Your task to perform on an android device: Search for Mexican restaurants on Maps Image 0: 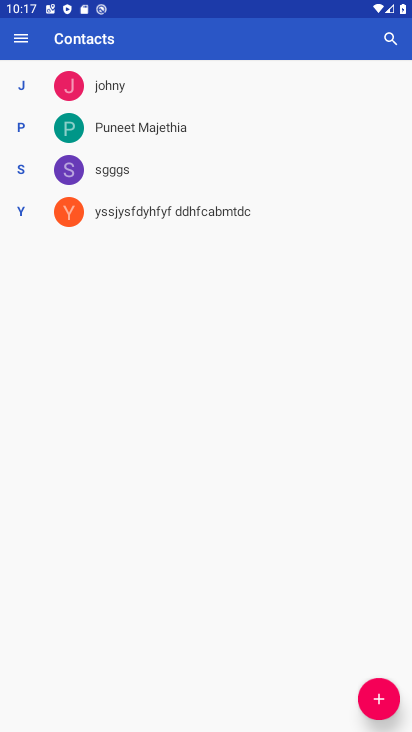
Step 0: press home button
Your task to perform on an android device: Search for Mexican restaurants on Maps Image 1: 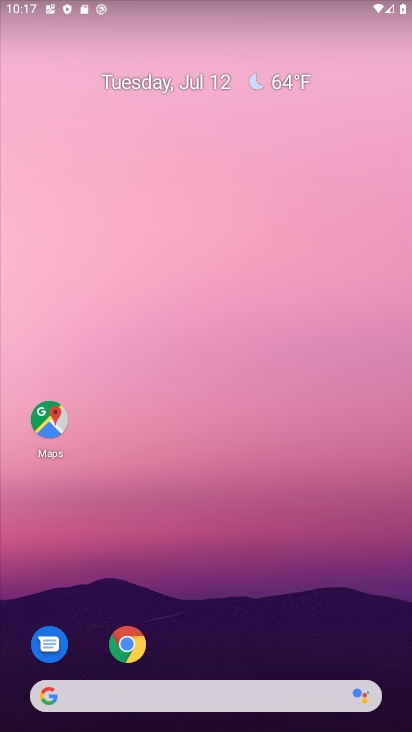
Step 1: drag from (241, 640) to (236, 182)
Your task to perform on an android device: Search for Mexican restaurants on Maps Image 2: 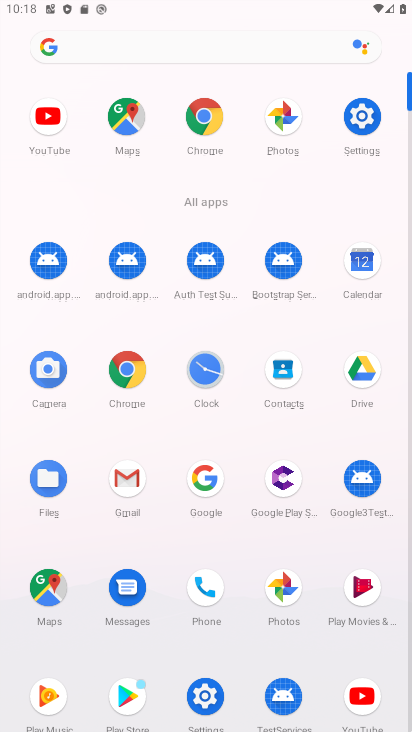
Step 2: click (55, 591)
Your task to perform on an android device: Search for Mexican restaurants on Maps Image 3: 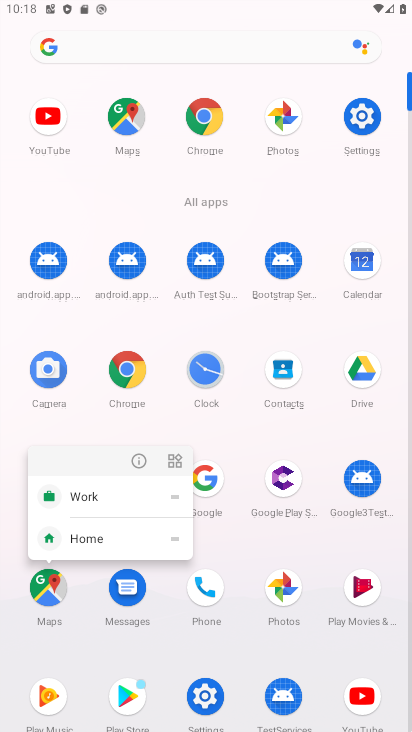
Step 3: click (55, 583)
Your task to perform on an android device: Search for Mexican restaurants on Maps Image 4: 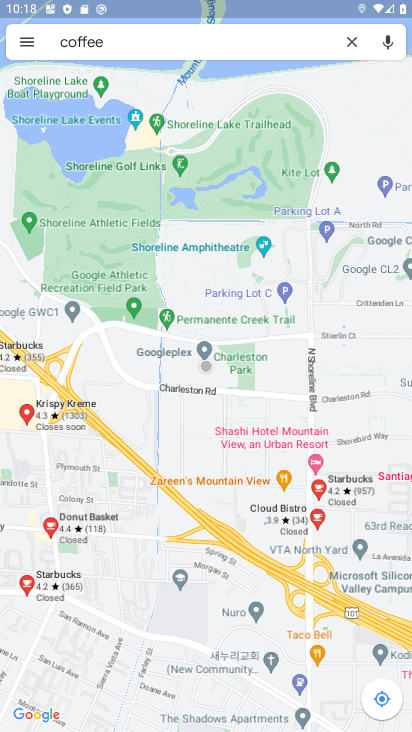
Step 4: click (184, 53)
Your task to perform on an android device: Search for Mexican restaurants on Maps Image 5: 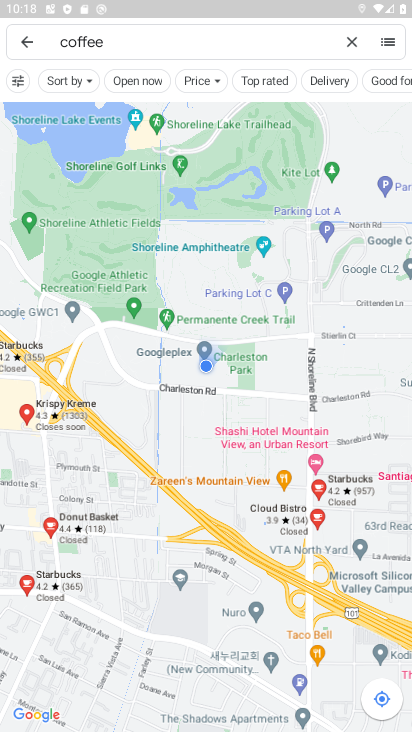
Step 5: click (348, 41)
Your task to perform on an android device: Search for Mexican restaurants on Maps Image 6: 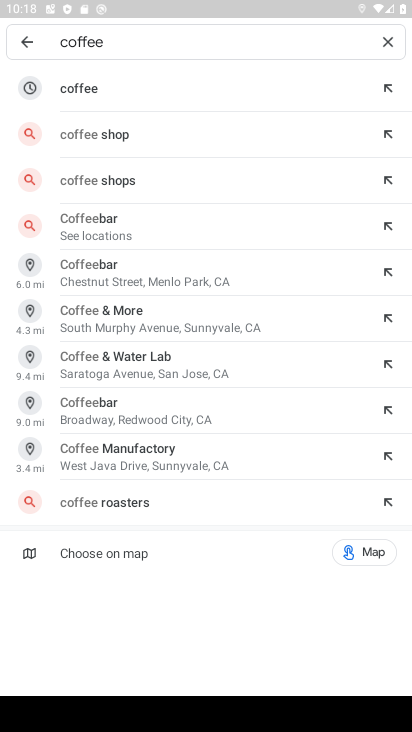
Step 6: click (388, 40)
Your task to perform on an android device: Search for Mexican restaurants on Maps Image 7: 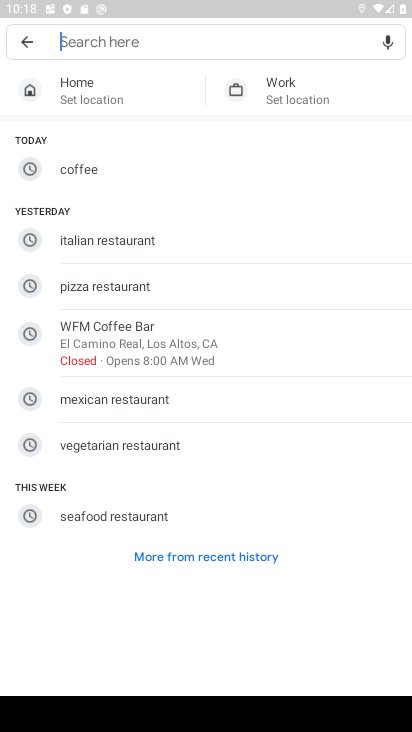
Step 7: click (164, 410)
Your task to perform on an android device: Search for Mexican restaurants on Maps Image 8: 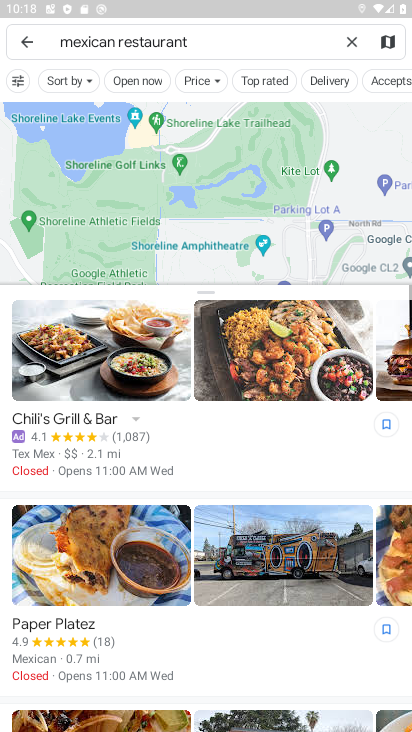
Step 8: task complete